Your task to perform on an android device: Open my contact list Image 0: 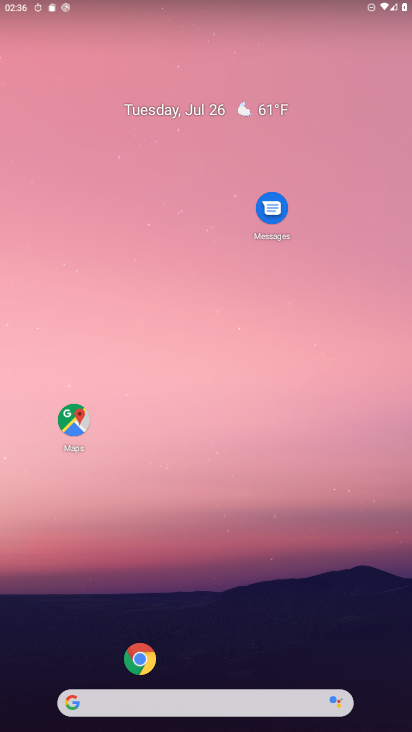
Step 0: click (238, 195)
Your task to perform on an android device: Open my contact list Image 1: 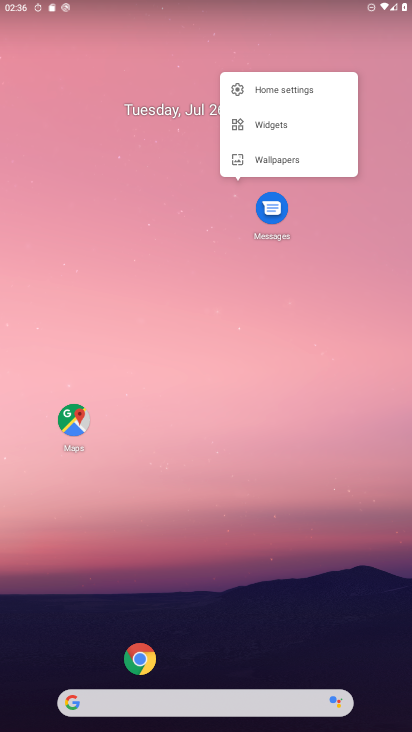
Step 1: drag from (34, 697) to (147, 226)
Your task to perform on an android device: Open my contact list Image 2: 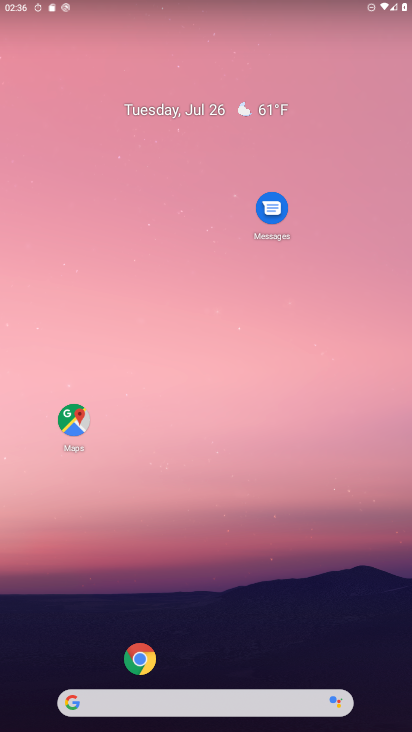
Step 2: drag from (33, 504) to (412, 612)
Your task to perform on an android device: Open my contact list Image 3: 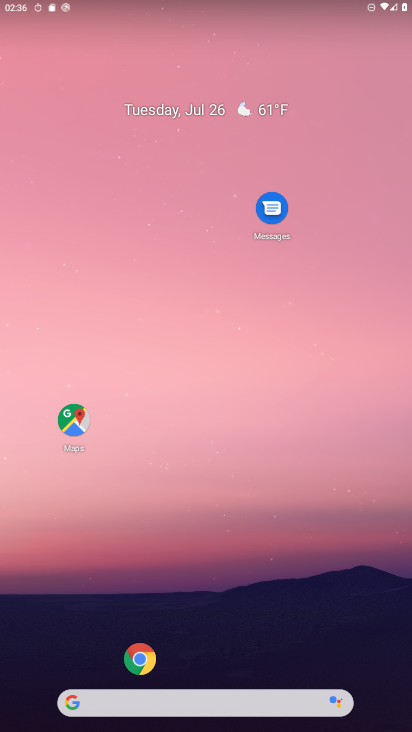
Step 3: drag from (5, 674) to (127, 215)
Your task to perform on an android device: Open my contact list Image 4: 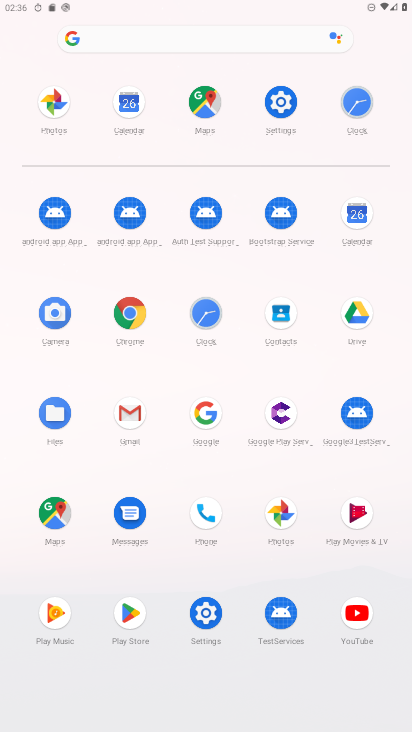
Step 4: click (192, 519)
Your task to perform on an android device: Open my contact list Image 5: 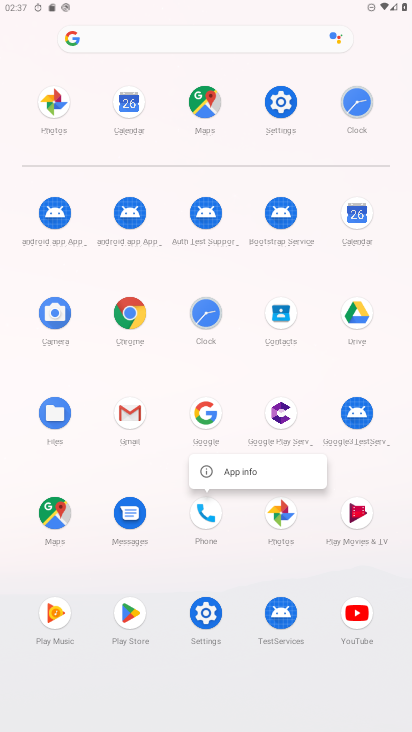
Step 5: click (200, 521)
Your task to perform on an android device: Open my contact list Image 6: 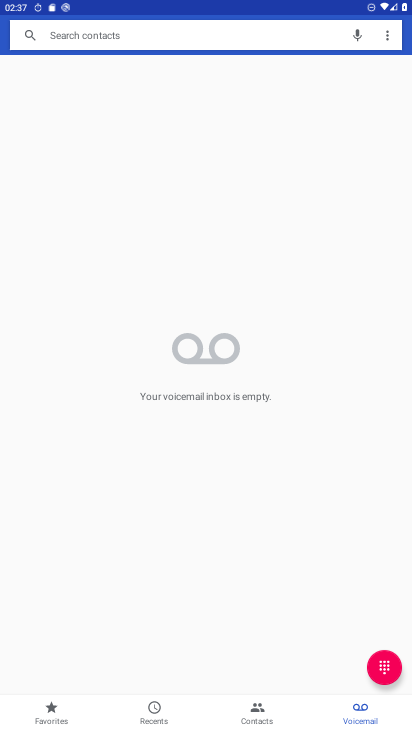
Step 6: click (258, 717)
Your task to perform on an android device: Open my contact list Image 7: 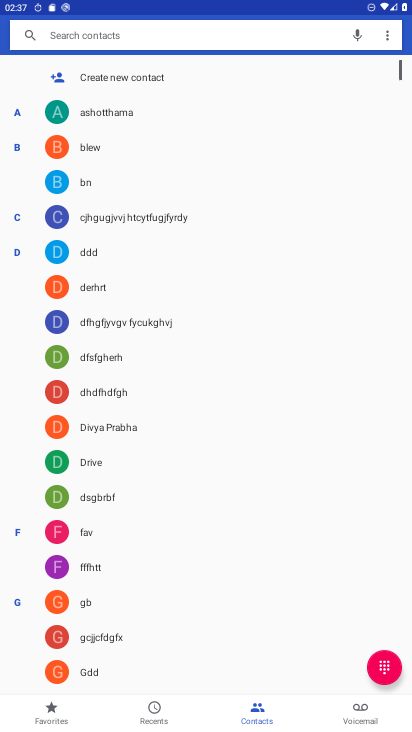
Step 7: task complete